Your task to perform on an android device: change the clock display to show seconds Image 0: 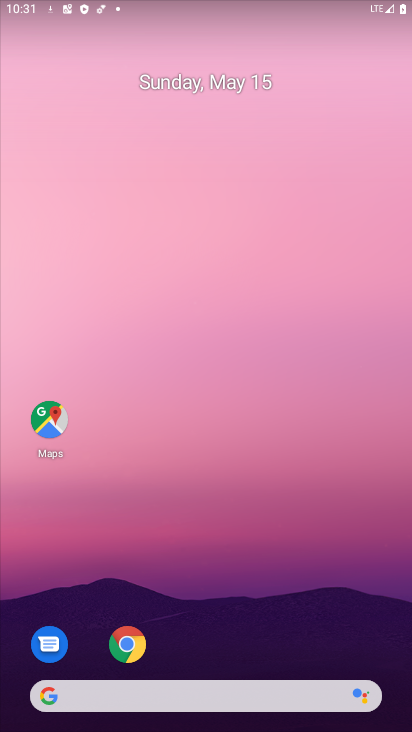
Step 0: drag from (235, 696) to (225, 202)
Your task to perform on an android device: change the clock display to show seconds Image 1: 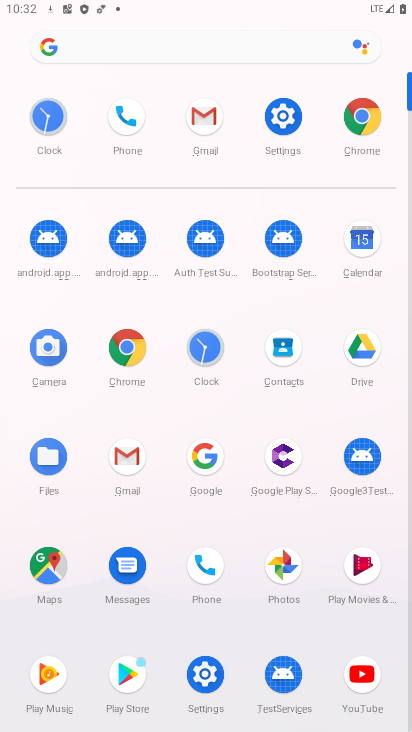
Step 1: click (209, 346)
Your task to perform on an android device: change the clock display to show seconds Image 2: 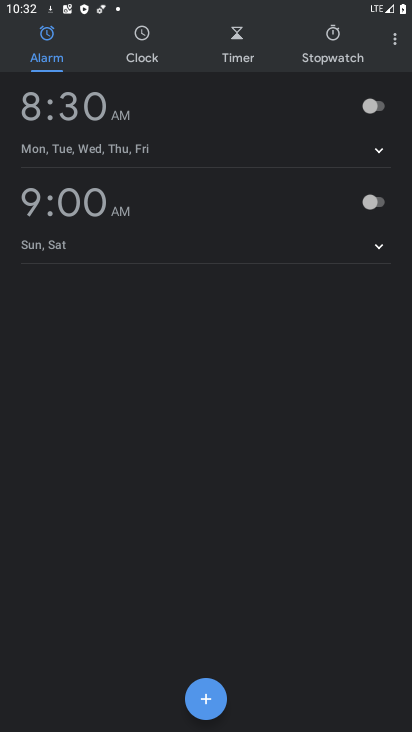
Step 2: click (374, 48)
Your task to perform on an android device: change the clock display to show seconds Image 3: 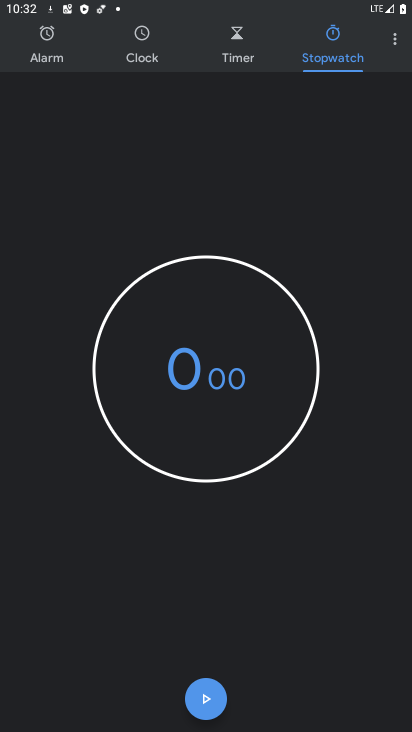
Step 3: click (391, 40)
Your task to perform on an android device: change the clock display to show seconds Image 4: 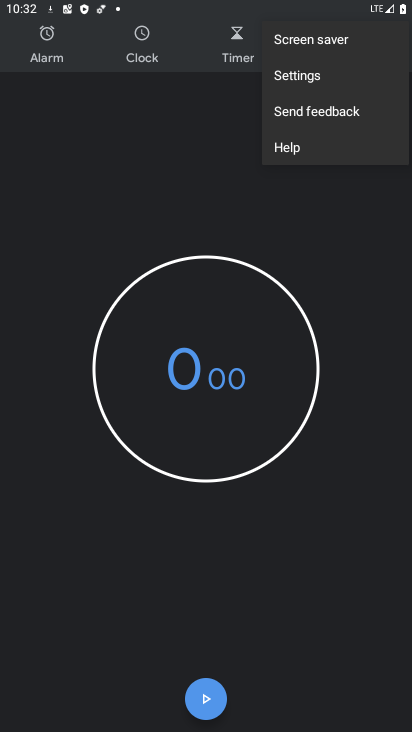
Step 4: click (327, 85)
Your task to perform on an android device: change the clock display to show seconds Image 5: 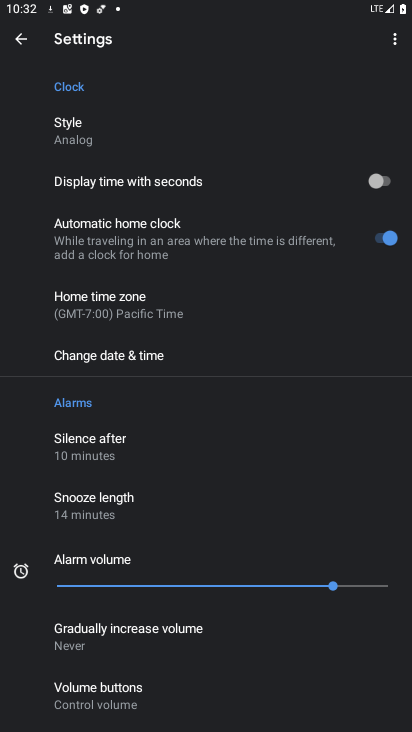
Step 5: click (304, 193)
Your task to perform on an android device: change the clock display to show seconds Image 6: 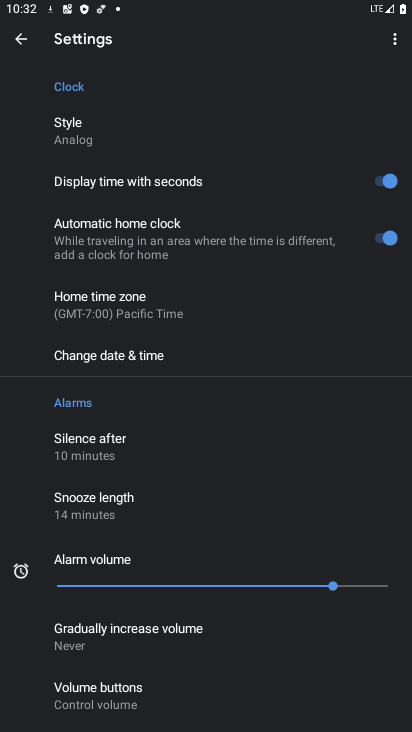
Step 6: task complete